Your task to perform on an android device: open sync settings in chrome Image 0: 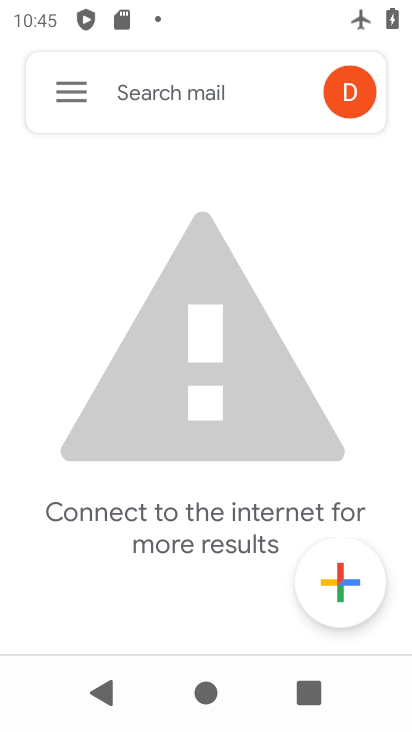
Step 0: press back button
Your task to perform on an android device: open sync settings in chrome Image 1: 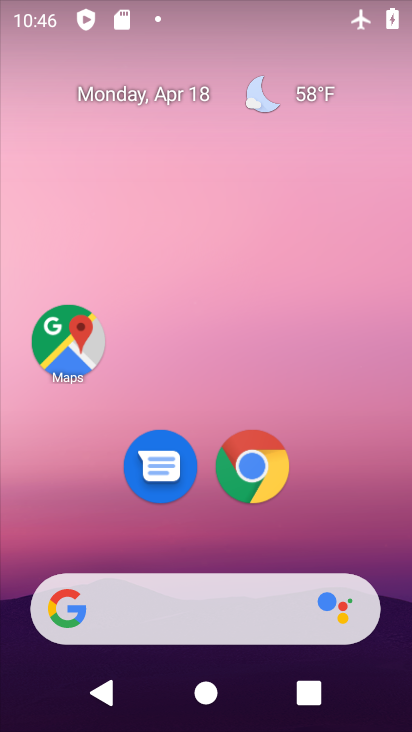
Step 1: click (241, 476)
Your task to perform on an android device: open sync settings in chrome Image 2: 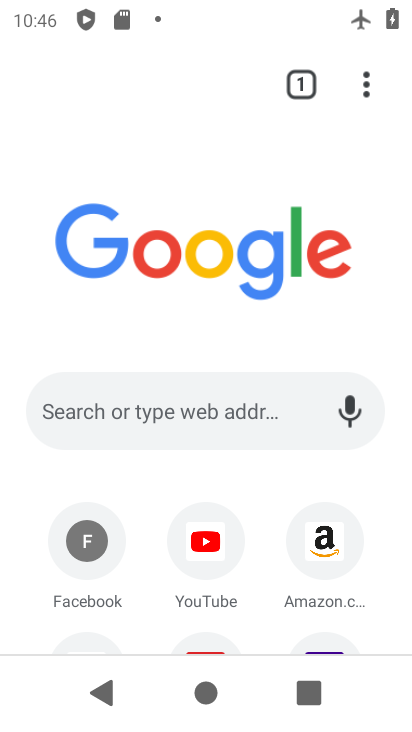
Step 2: drag from (359, 92) to (134, 520)
Your task to perform on an android device: open sync settings in chrome Image 3: 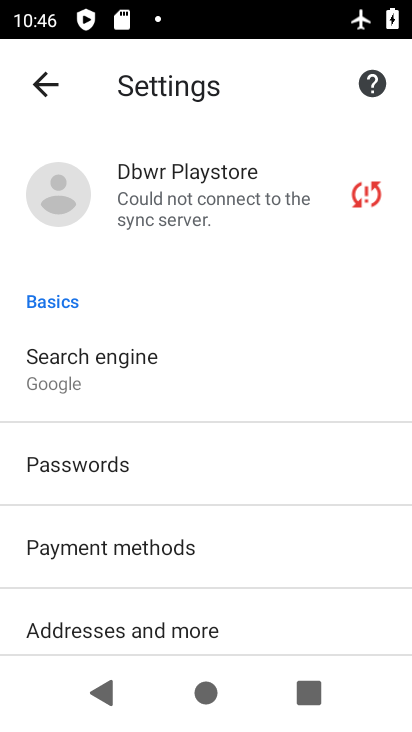
Step 3: click (165, 193)
Your task to perform on an android device: open sync settings in chrome Image 4: 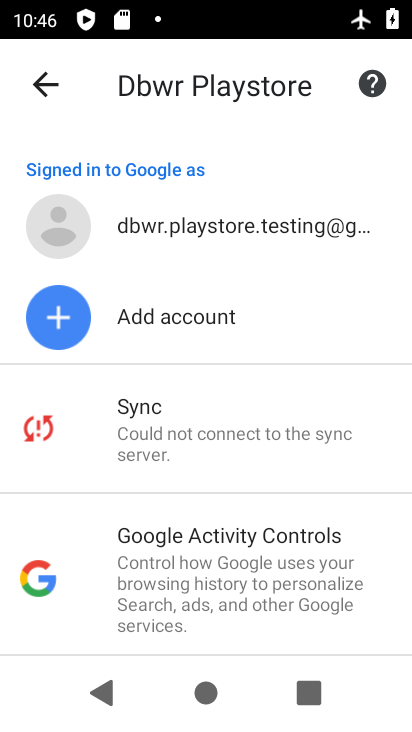
Step 4: click (162, 417)
Your task to perform on an android device: open sync settings in chrome Image 5: 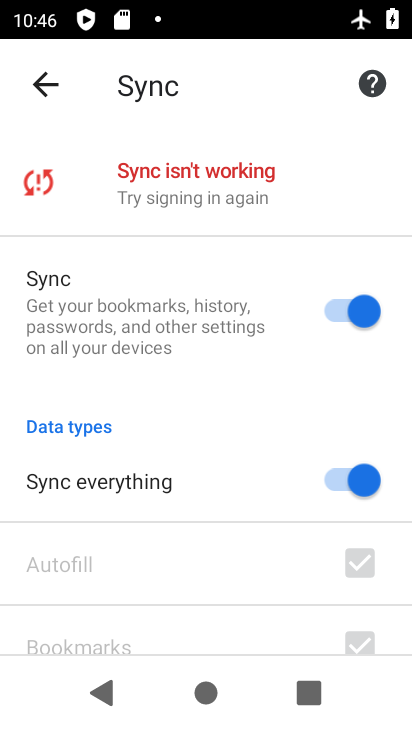
Step 5: task complete